Your task to perform on an android device: Toggle the flashlight Image 0: 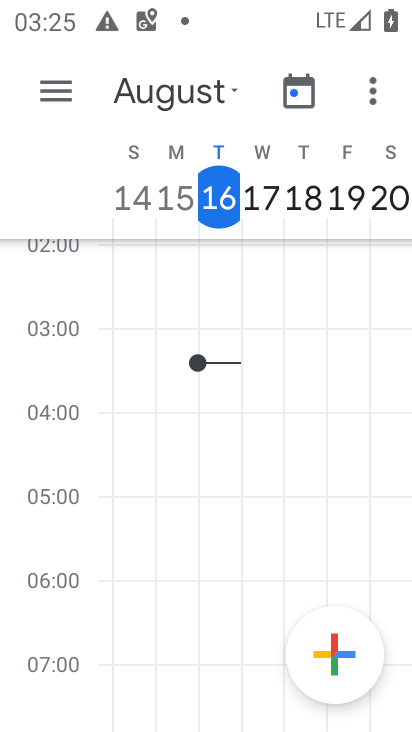
Step 0: press home button
Your task to perform on an android device: Toggle the flashlight Image 1: 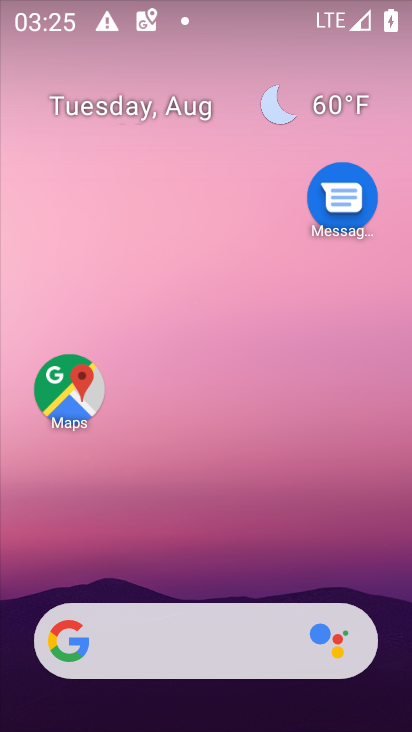
Step 1: drag from (181, 601) to (183, 1)
Your task to perform on an android device: Toggle the flashlight Image 2: 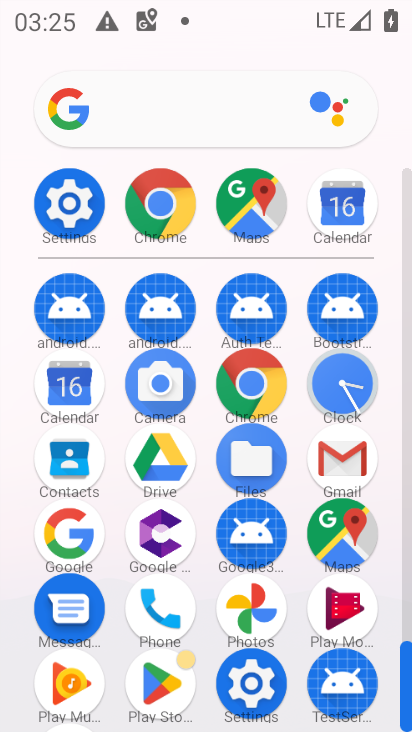
Step 2: click (74, 210)
Your task to perform on an android device: Toggle the flashlight Image 3: 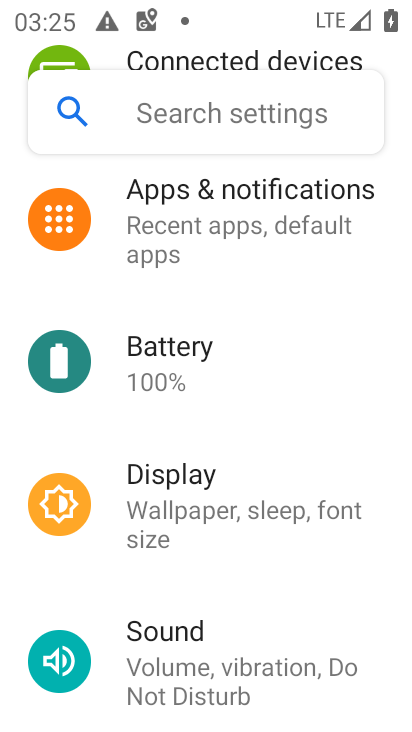
Step 3: task complete